Your task to perform on an android device: Show me productivity apps on the Play Store Image 0: 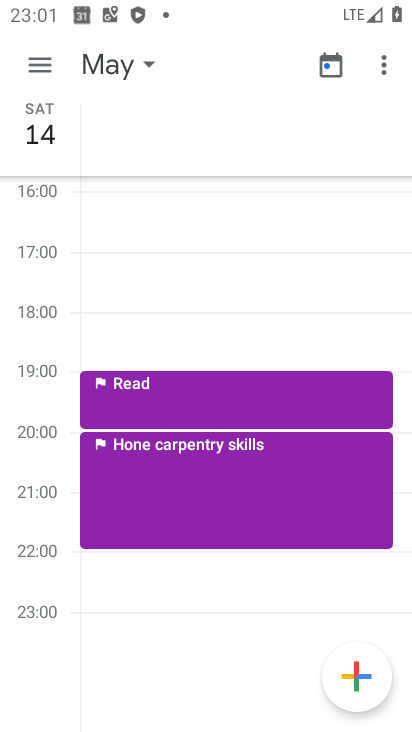
Step 0: press home button
Your task to perform on an android device: Show me productivity apps on the Play Store Image 1: 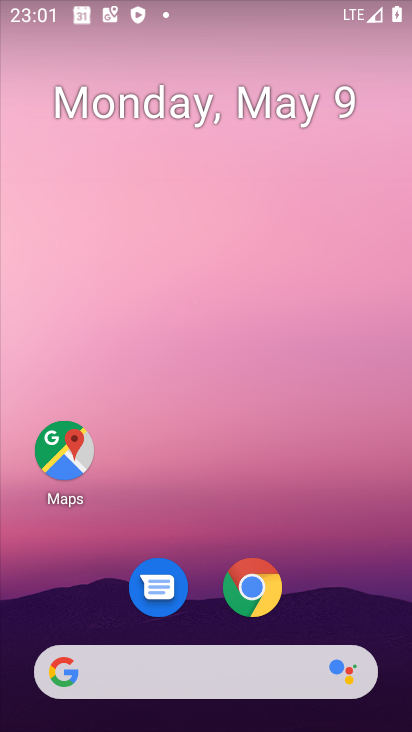
Step 1: drag from (197, 615) to (308, 11)
Your task to perform on an android device: Show me productivity apps on the Play Store Image 2: 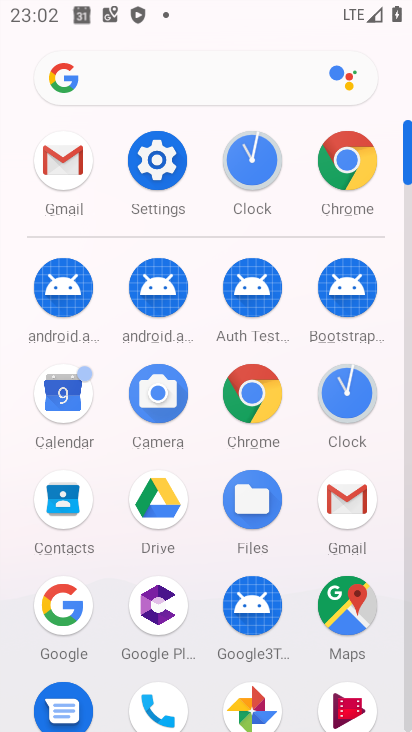
Step 2: drag from (191, 681) to (192, 172)
Your task to perform on an android device: Show me productivity apps on the Play Store Image 3: 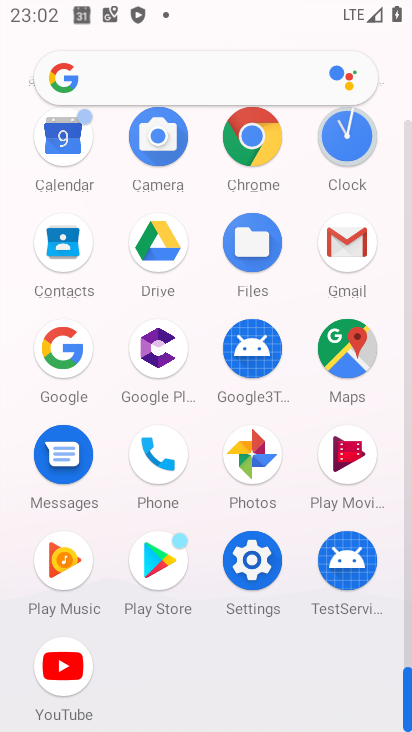
Step 3: click (151, 565)
Your task to perform on an android device: Show me productivity apps on the Play Store Image 4: 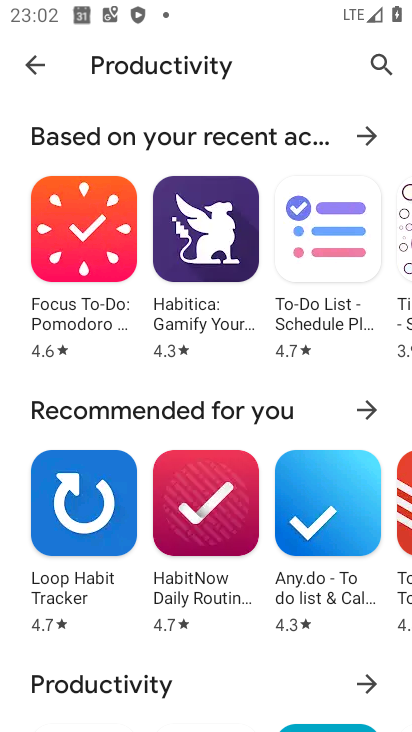
Step 4: task complete